Your task to perform on an android device: Open eBay Image 0: 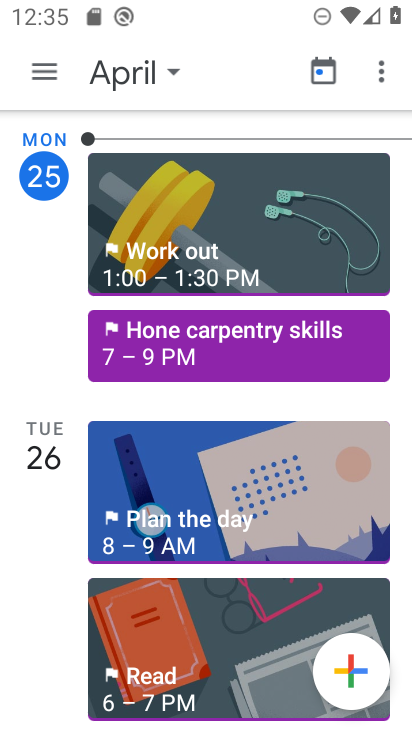
Step 0: press home button
Your task to perform on an android device: Open eBay Image 1: 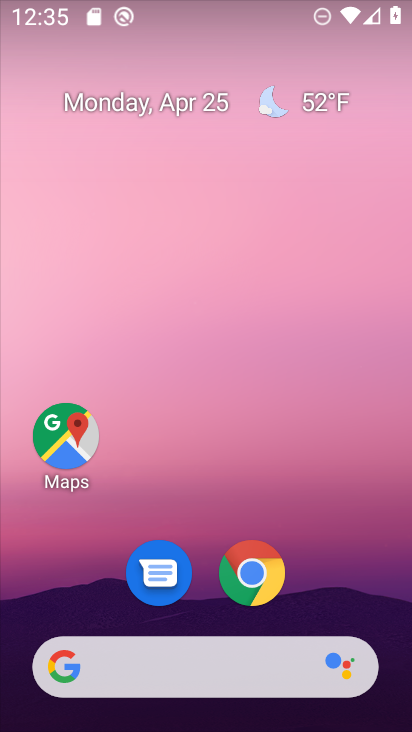
Step 1: click (248, 571)
Your task to perform on an android device: Open eBay Image 2: 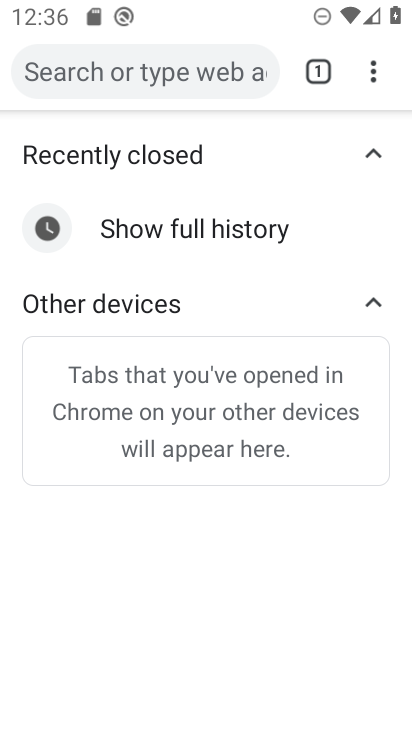
Step 2: click (374, 77)
Your task to perform on an android device: Open eBay Image 3: 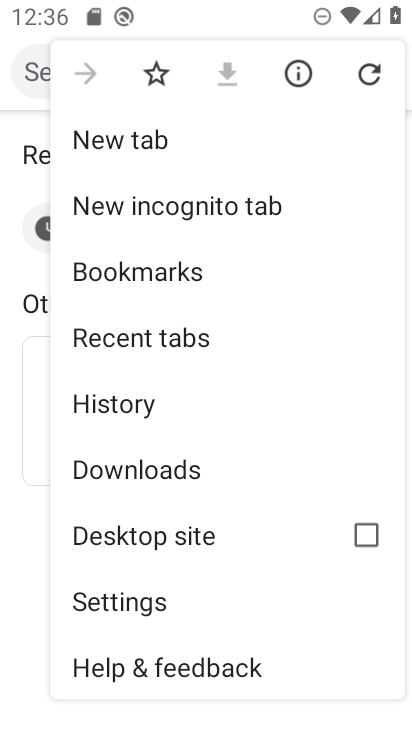
Step 3: click (146, 142)
Your task to perform on an android device: Open eBay Image 4: 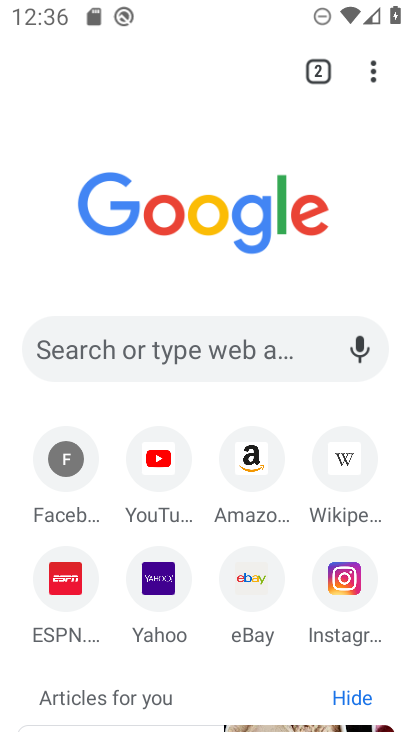
Step 4: click (223, 354)
Your task to perform on an android device: Open eBay Image 5: 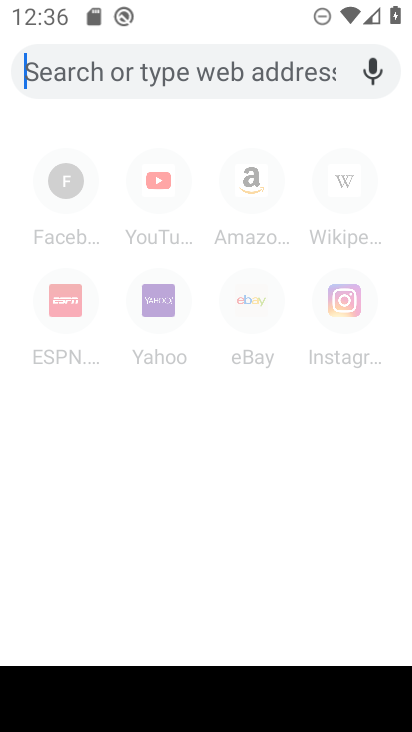
Step 5: type "eBay"
Your task to perform on an android device: Open eBay Image 6: 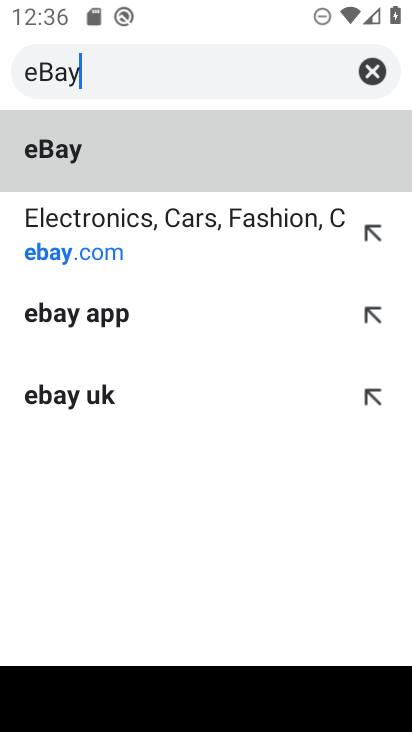
Step 6: click (136, 218)
Your task to perform on an android device: Open eBay Image 7: 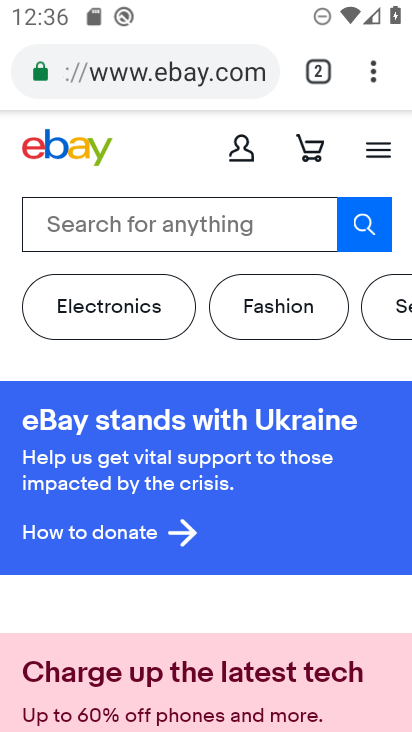
Step 7: task complete